Your task to perform on an android device: Open Amazon Image 0: 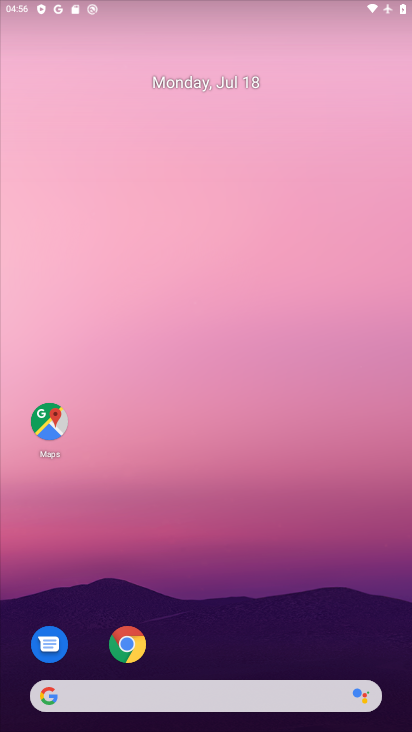
Step 0: press home button
Your task to perform on an android device: Open Amazon Image 1: 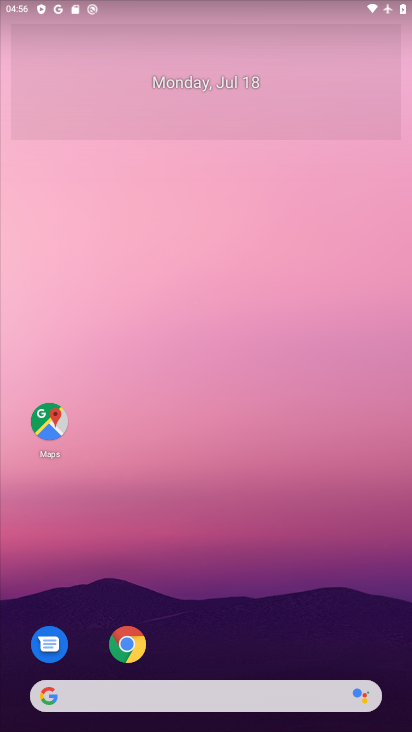
Step 1: click (46, 697)
Your task to perform on an android device: Open Amazon Image 2: 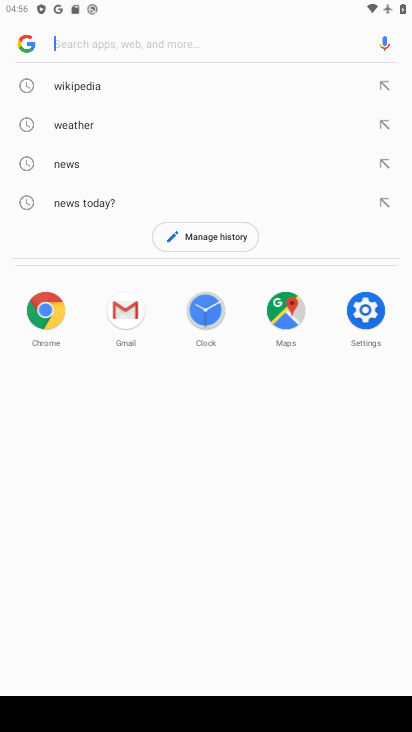
Step 2: type "Amazon"
Your task to perform on an android device: Open Amazon Image 3: 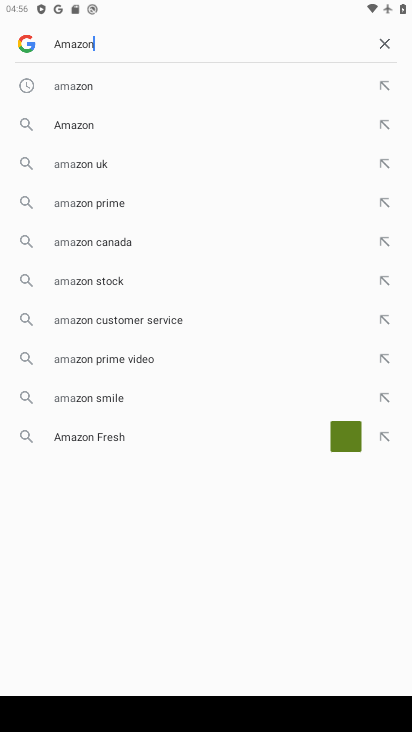
Step 3: press enter
Your task to perform on an android device: Open Amazon Image 4: 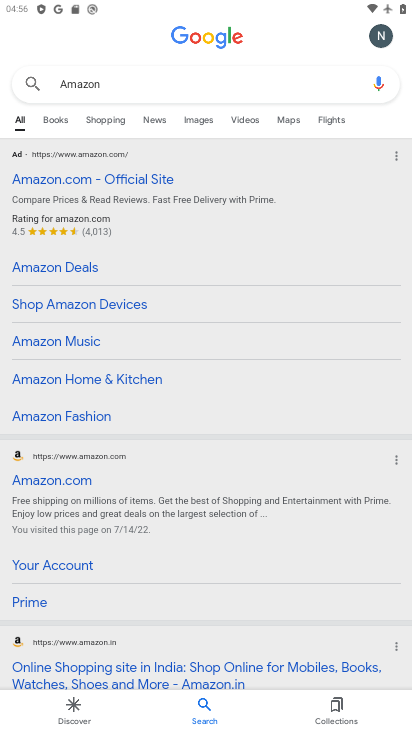
Step 4: click (88, 179)
Your task to perform on an android device: Open Amazon Image 5: 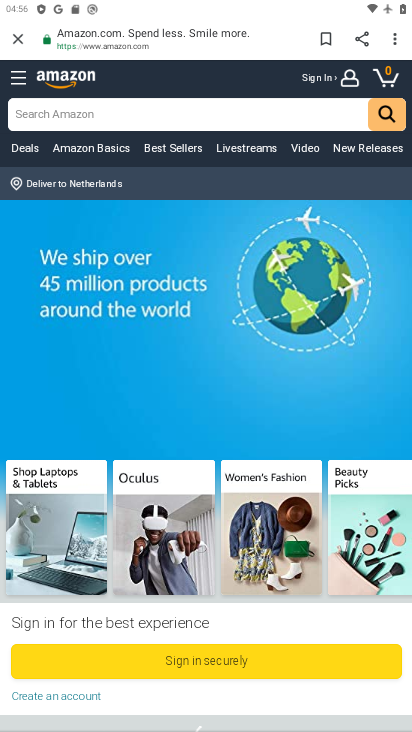
Step 5: task complete